Your task to perform on an android device: Open calendar and show me the first week of next month Image 0: 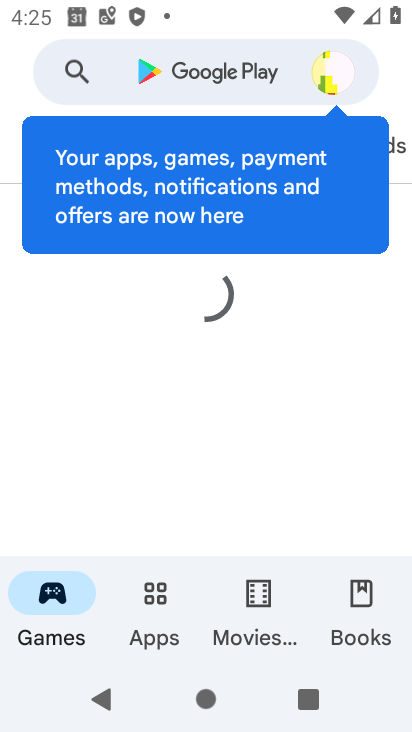
Step 0: press back button
Your task to perform on an android device: Open calendar and show me the first week of next month Image 1: 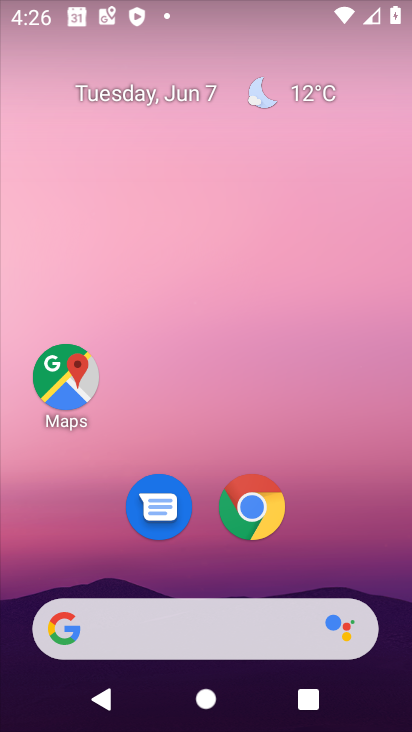
Step 1: drag from (268, 222) to (220, 0)
Your task to perform on an android device: Open calendar and show me the first week of next month Image 2: 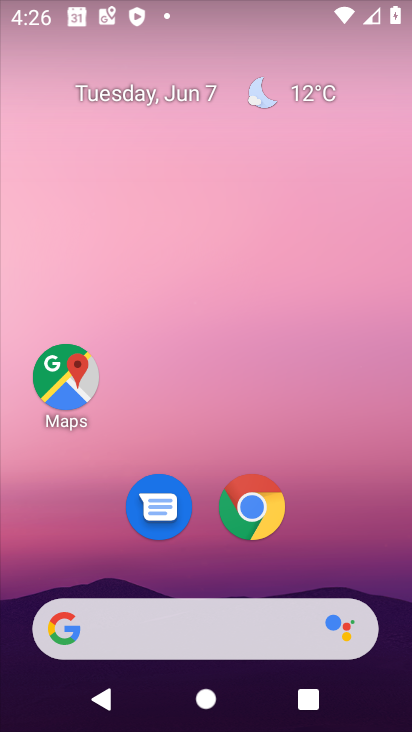
Step 2: drag from (346, 534) to (230, 17)
Your task to perform on an android device: Open calendar and show me the first week of next month Image 3: 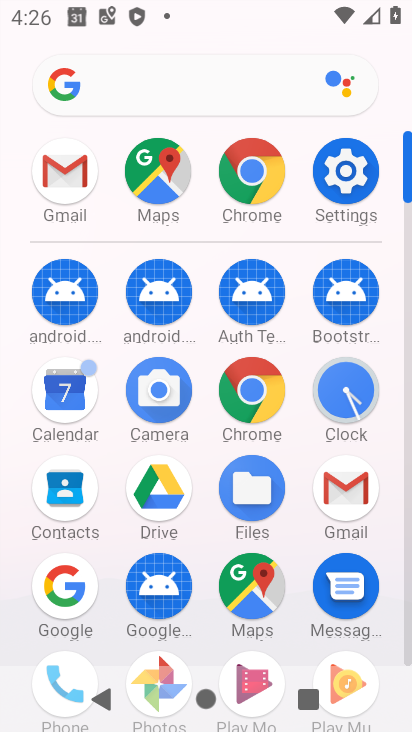
Step 3: drag from (8, 573) to (4, 244)
Your task to perform on an android device: Open calendar and show me the first week of next month Image 4: 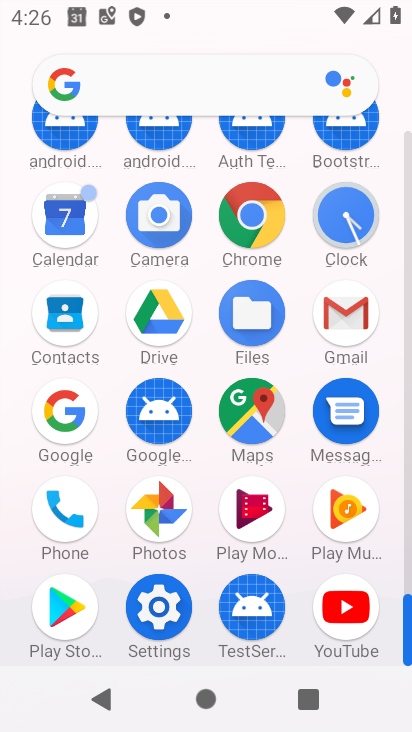
Step 4: click (62, 203)
Your task to perform on an android device: Open calendar and show me the first week of next month Image 5: 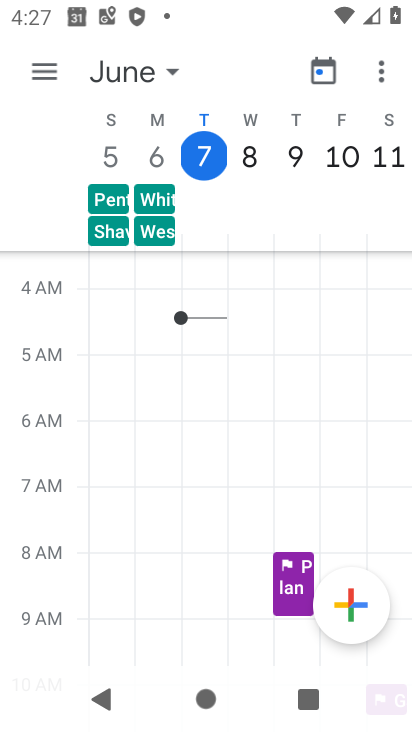
Step 5: click (118, 69)
Your task to perform on an android device: Open calendar and show me the first week of next month Image 6: 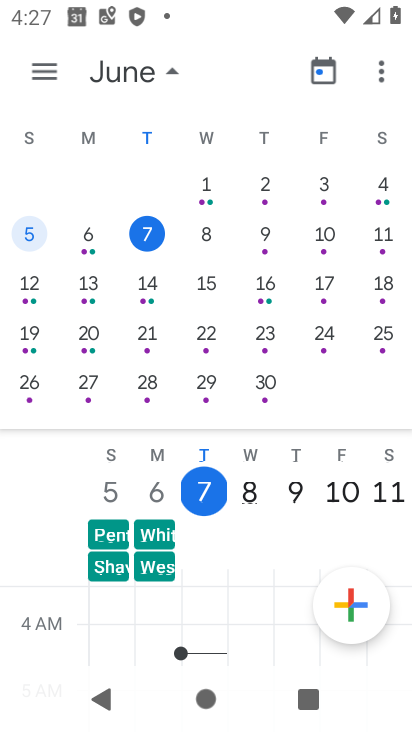
Step 6: drag from (369, 306) to (31, 299)
Your task to perform on an android device: Open calendar and show me the first week of next month Image 7: 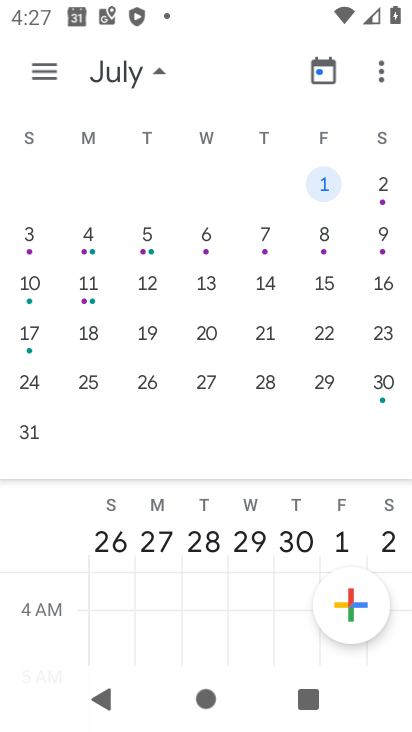
Step 7: click (31, 230)
Your task to perform on an android device: Open calendar and show me the first week of next month Image 8: 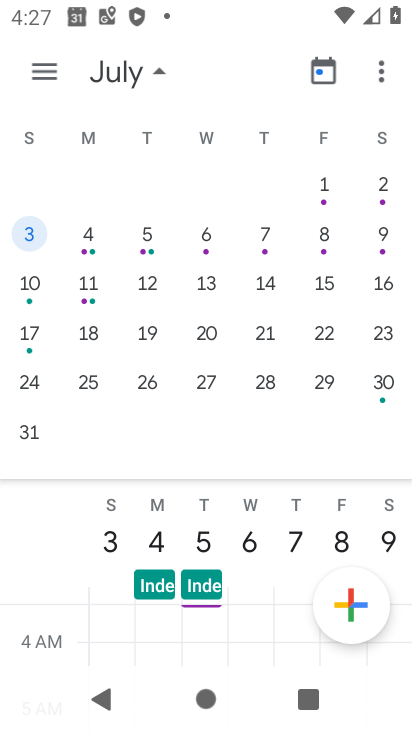
Step 8: click (38, 57)
Your task to perform on an android device: Open calendar and show me the first week of next month Image 9: 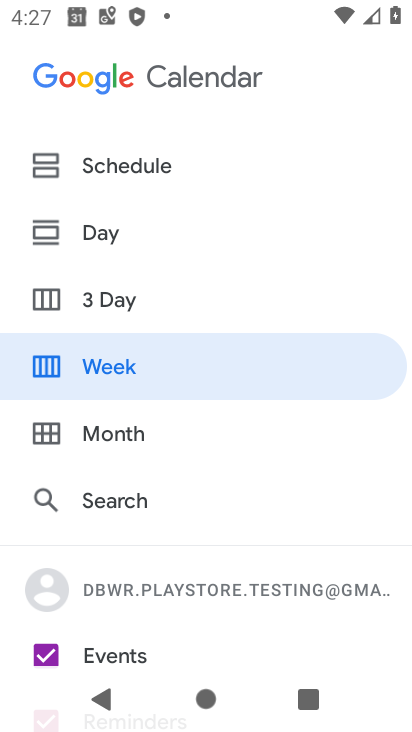
Step 9: click (140, 357)
Your task to perform on an android device: Open calendar and show me the first week of next month Image 10: 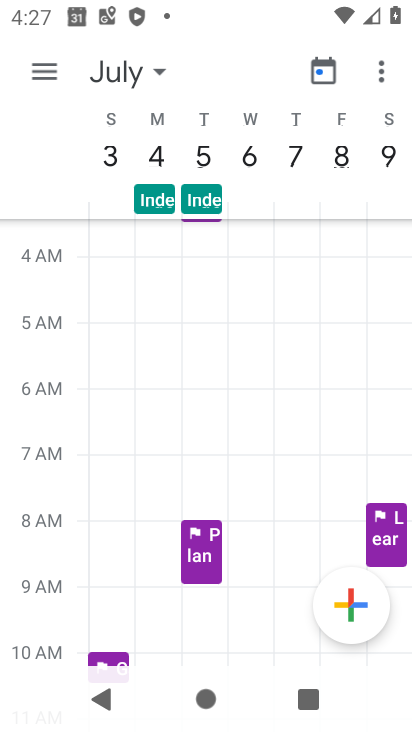
Step 10: task complete